Your task to perform on an android device: set default search engine in the chrome app Image 0: 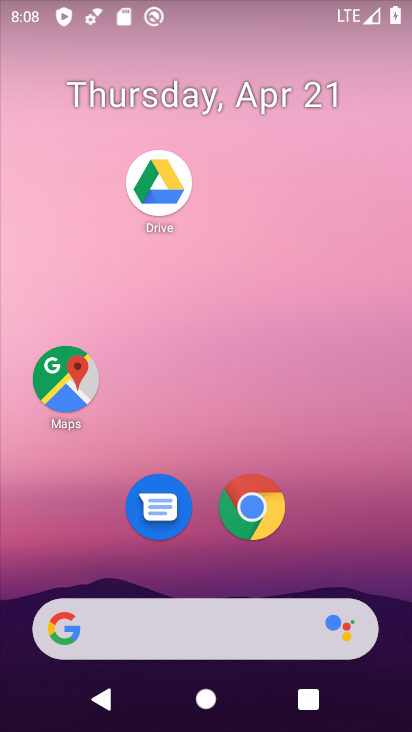
Step 0: drag from (377, 555) to (368, 152)
Your task to perform on an android device: set default search engine in the chrome app Image 1: 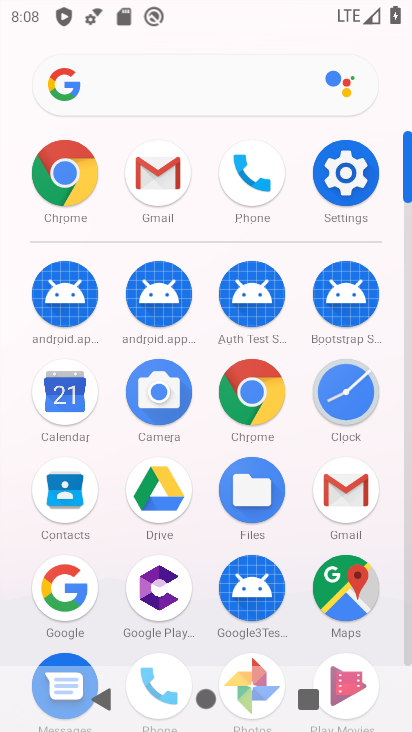
Step 1: click (248, 394)
Your task to perform on an android device: set default search engine in the chrome app Image 2: 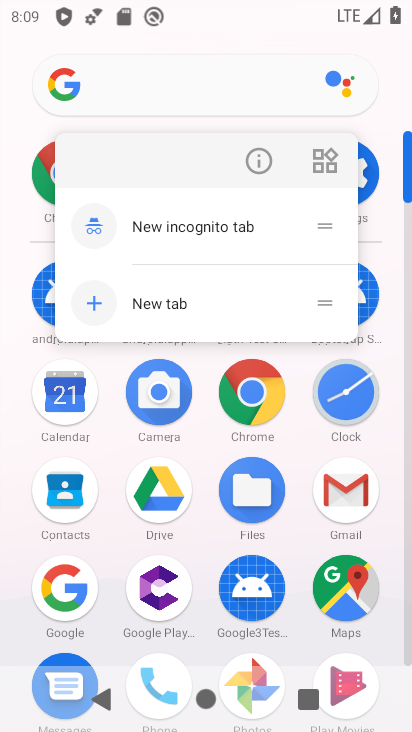
Step 2: click (248, 395)
Your task to perform on an android device: set default search engine in the chrome app Image 3: 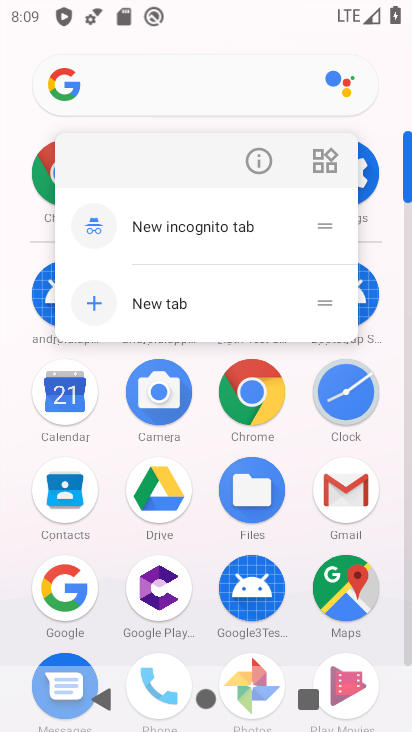
Step 3: click (249, 396)
Your task to perform on an android device: set default search engine in the chrome app Image 4: 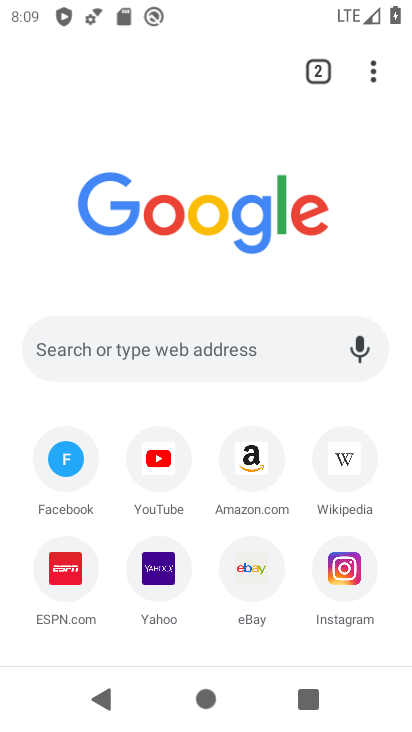
Step 4: click (371, 74)
Your task to perform on an android device: set default search engine in the chrome app Image 5: 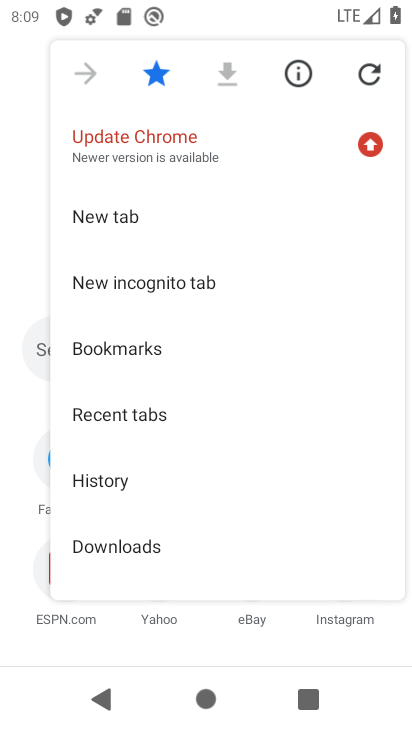
Step 5: drag from (312, 477) to (311, 345)
Your task to perform on an android device: set default search engine in the chrome app Image 6: 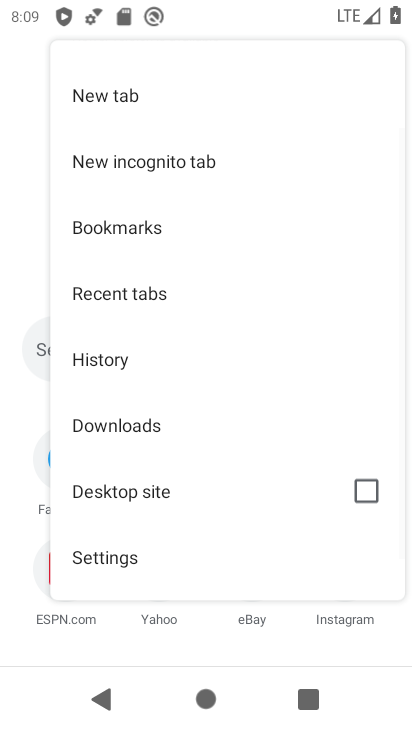
Step 6: drag from (273, 508) to (273, 347)
Your task to perform on an android device: set default search engine in the chrome app Image 7: 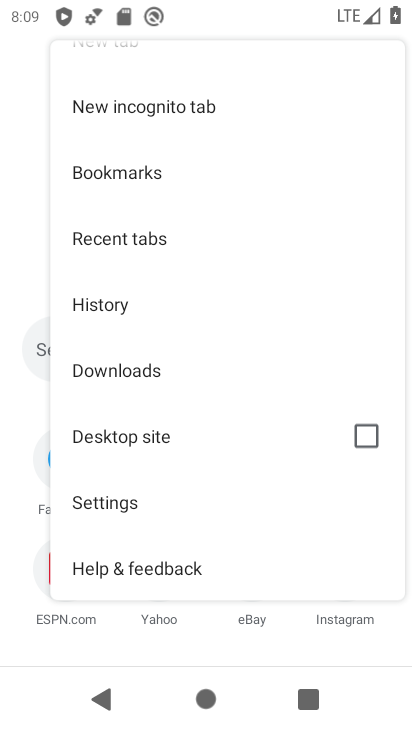
Step 7: click (134, 517)
Your task to perform on an android device: set default search engine in the chrome app Image 8: 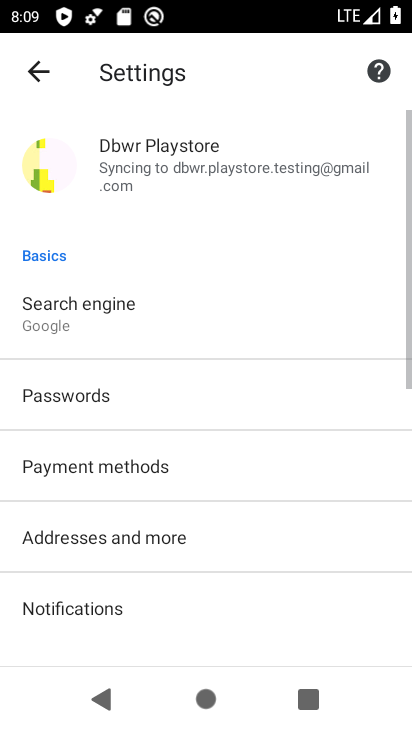
Step 8: drag from (266, 543) to (290, 428)
Your task to perform on an android device: set default search engine in the chrome app Image 9: 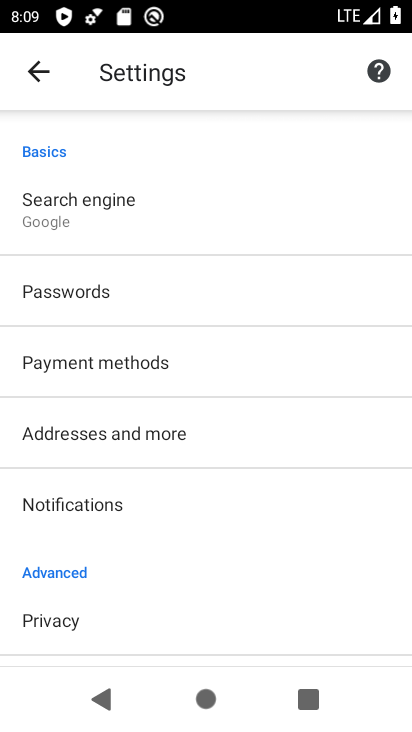
Step 9: drag from (294, 559) to (313, 446)
Your task to perform on an android device: set default search engine in the chrome app Image 10: 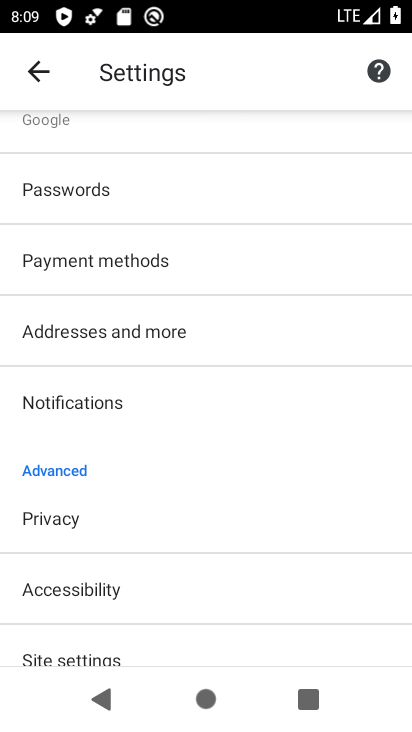
Step 10: drag from (298, 577) to (317, 462)
Your task to perform on an android device: set default search engine in the chrome app Image 11: 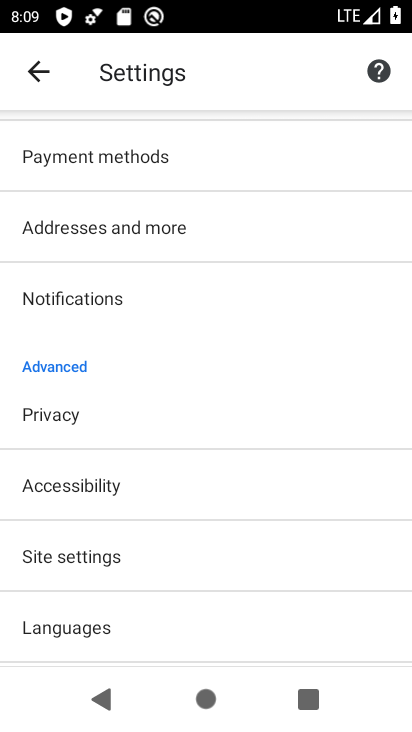
Step 11: drag from (295, 605) to (308, 472)
Your task to perform on an android device: set default search engine in the chrome app Image 12: 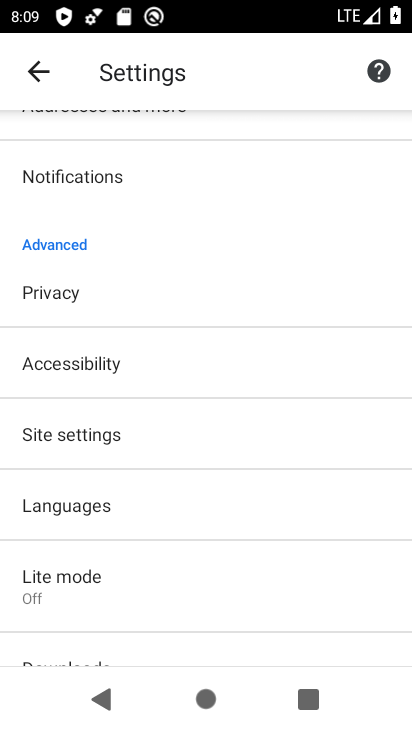
Step 12: drag from (280, 585) to (298, 466)
Your task to perform on an android device: set default search engine in the chrome app Image 13: 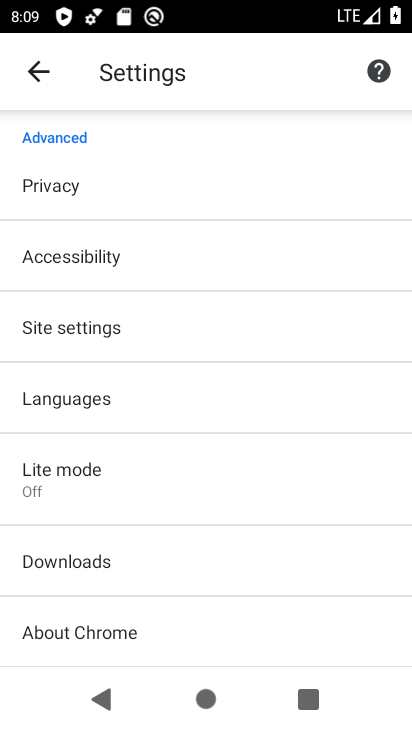
Step 13: drag from (285, 595) to (295, 432)
Your task to perform on an android device: set default search engine in the chrome app Image 14: 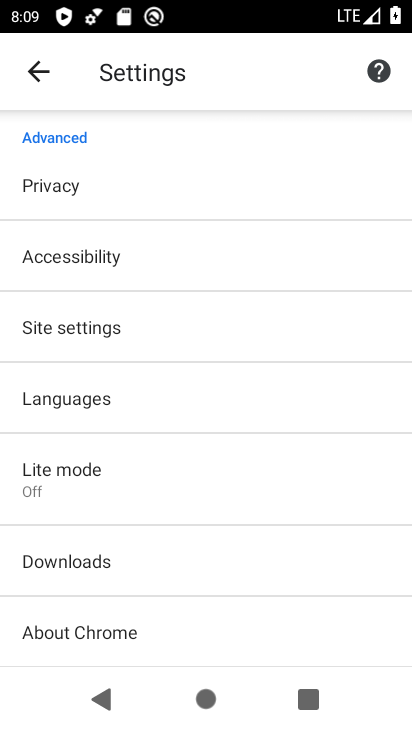
Step 14: drag from (314, 310) to (302, 436)
Your task to perform on an android device: set default search engine in the chrome app Image 15: 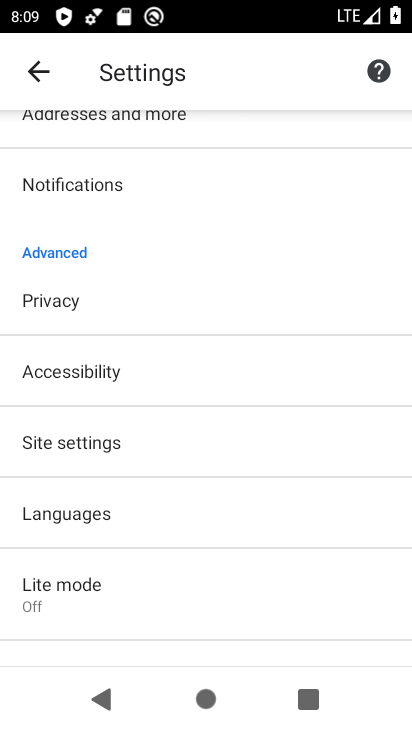
Step 15: drag from (317, 264) to (311, 403)
Your task to perform on an android device: set default search engine in the chrome app Image 16: 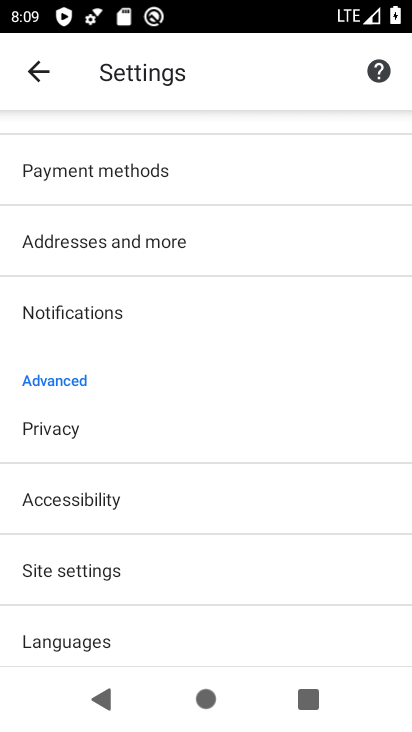
Step 16: drag from (328, 249) to (320, 403)
Your task to perform on an android device: set default search engine in the chrome app Image 17: 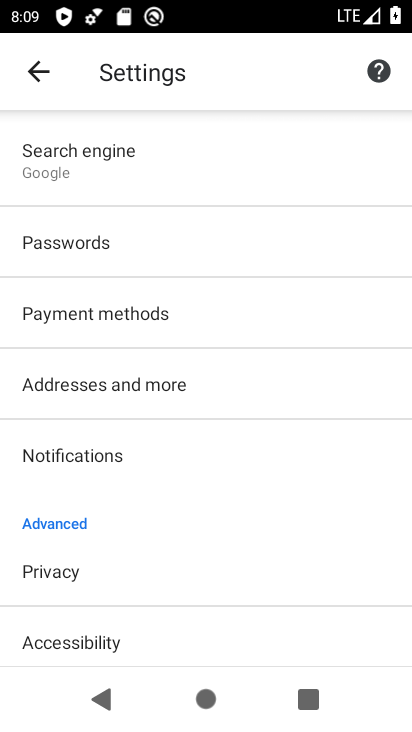
Step 17: drag from (325, 236) to (314, 390)
Your task to perform on an android device: set default search engine in the chrome app Image 18: 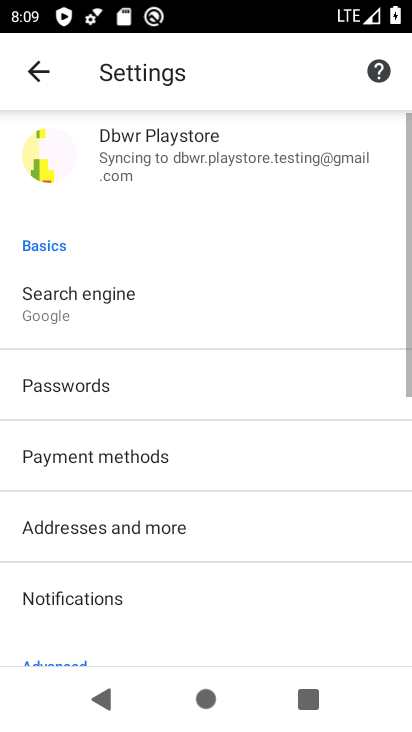
Step 18: drag from (320, 258) to (325, 390)
Your task to perform on an android device: set default search engine in the chrome app Image 19: 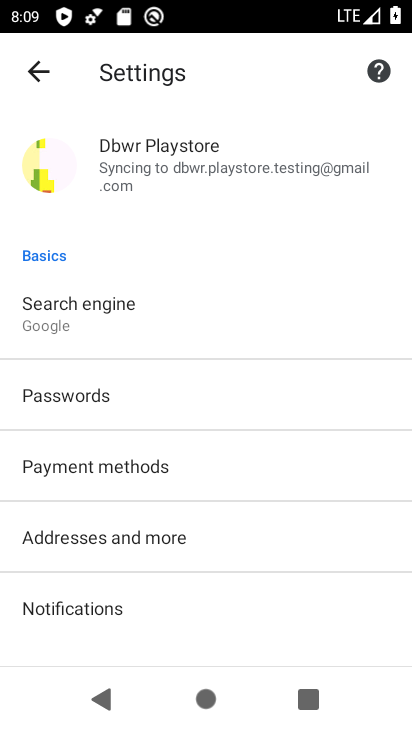
Step 19: click (91, 314)
Your task to perform on an android device: set default search engine in the chrome app Image 20: 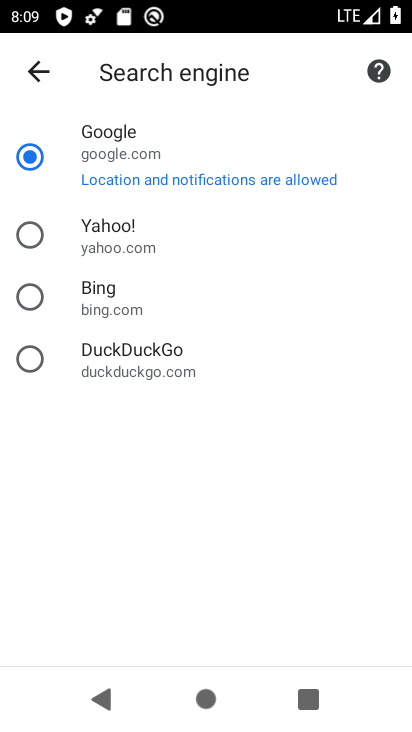
Step 20: click (34, 291)
Your task to perform on an android device: set default search engine in the chrome app Image 21: 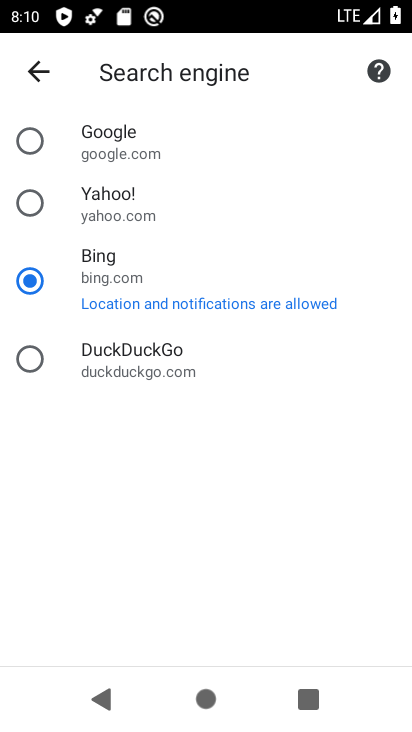
Step 21: task complete